Your task to perform on an android device: see tabs open on other devices in the chrome app Image 0: 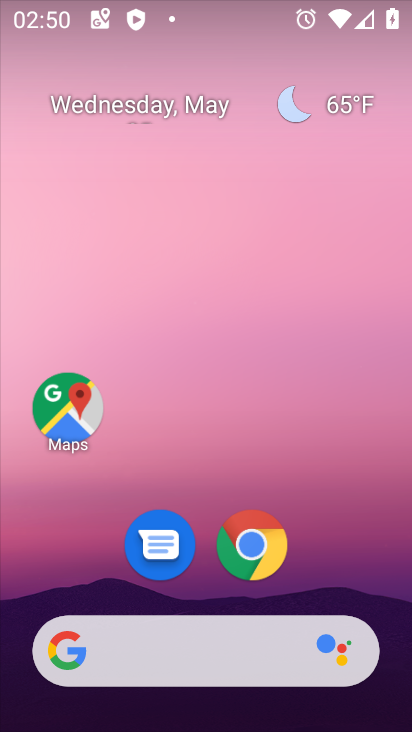
Step 0: click (258, 545)
Your task to perform on an android device: see tabs open on other devices in the chrome app Image 1: 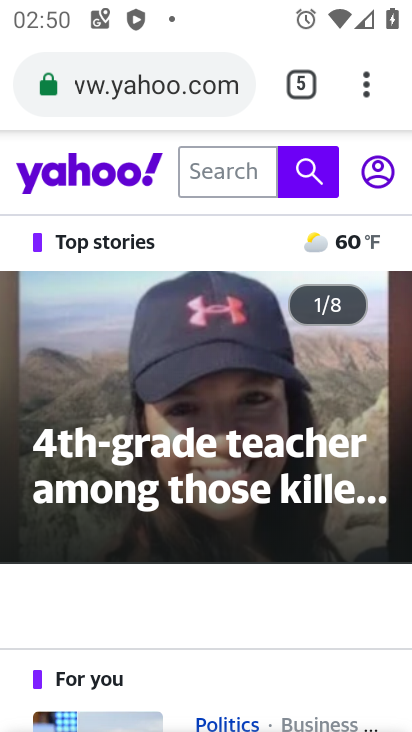
Step 1: click (287, 88)
Your task to perform on an android device: see tabs open on other devices in the chrome app Image 2: 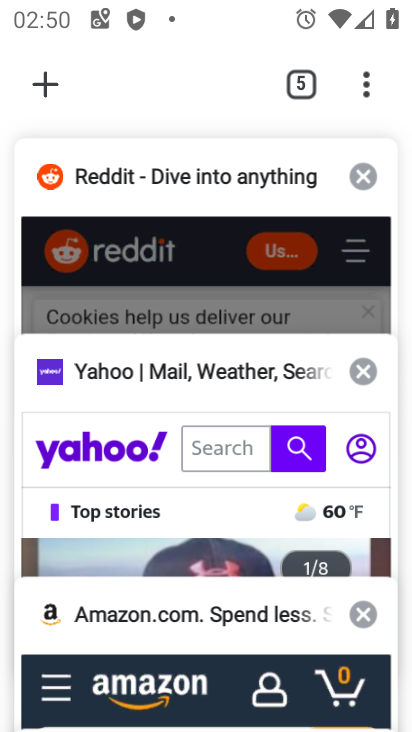
Step 2: click (296, 89)
Your task to perform on an android device: see tabs open on other devices in the chrome app Image 3: 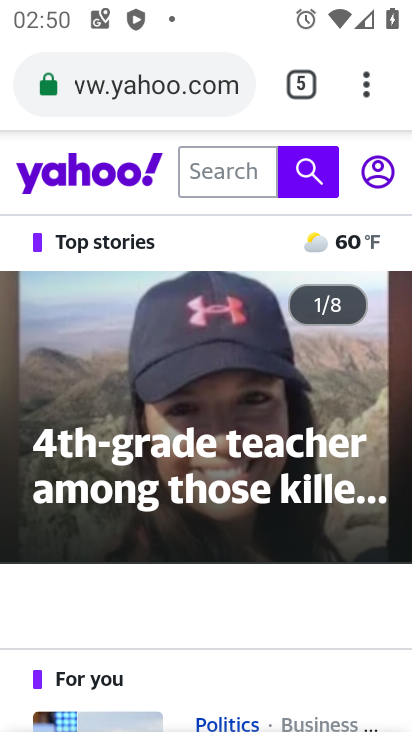
Step 3: click (367, 77)
Your task to perform on an android device: see tabs open on other devices in the chrome app Image 4: 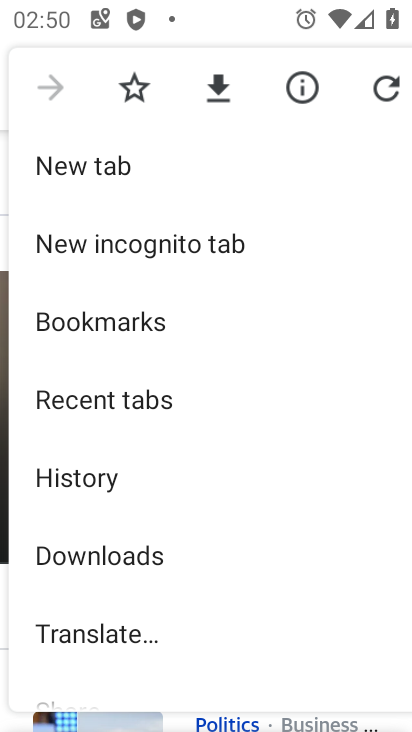
Step 4: click (185, 392)
Your task to perform on an android device: see tabs open on other devices in the chrome app Image 5: 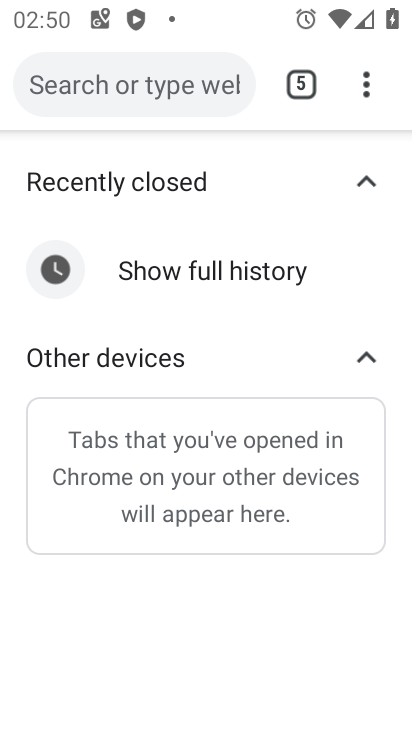
Step 5: task complete